Your task to perform on an android device: When is my next meeting? Image 0: 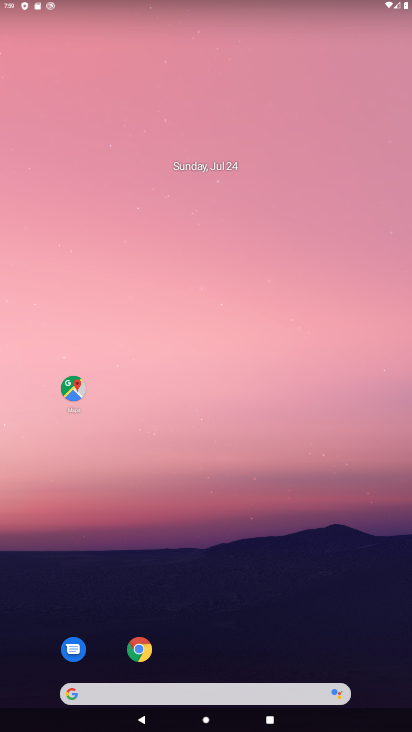
Step 0: drag from (207, 658) to (154, 104)
Your task to perform on an android device: When is my next meeting? Image 1: 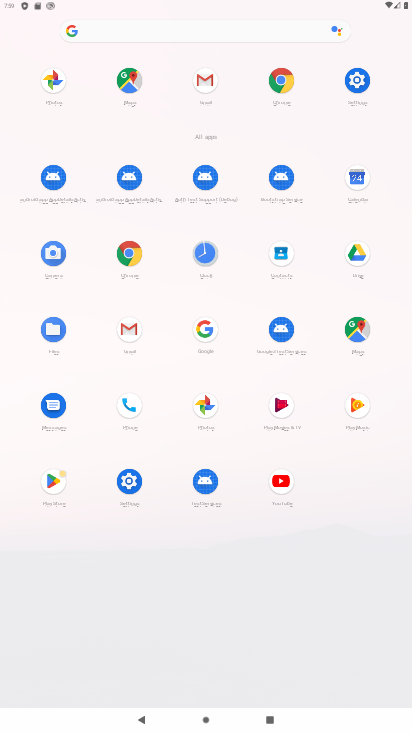
Step 1: click (362, 180)
Your task to perform on an android device: When is my next meeting? Image 2: 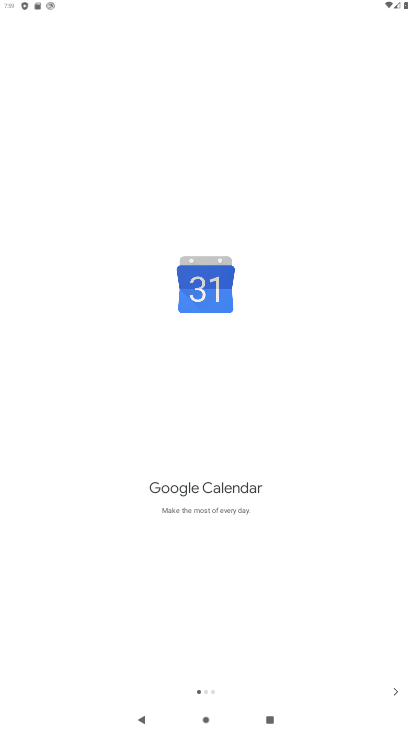
Step 2: click (386, 695)
Your task to perform on an android device: When is my next meeting? Image 3: 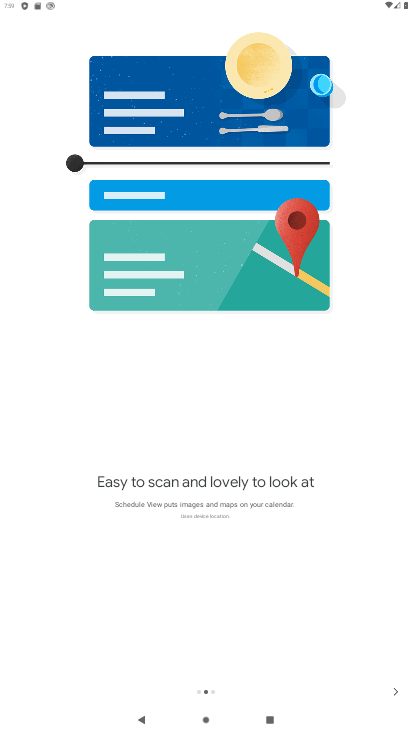
Step 3: click (388, 687)
Your task to perform on an android device: When is my next meeting? Image 4: 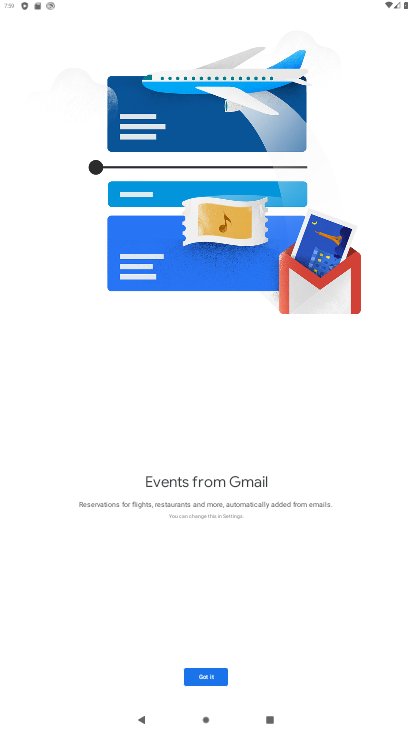
Step 4: click (216, 673)
Your task to perform on an android device: When is my next meeting? Image 5: 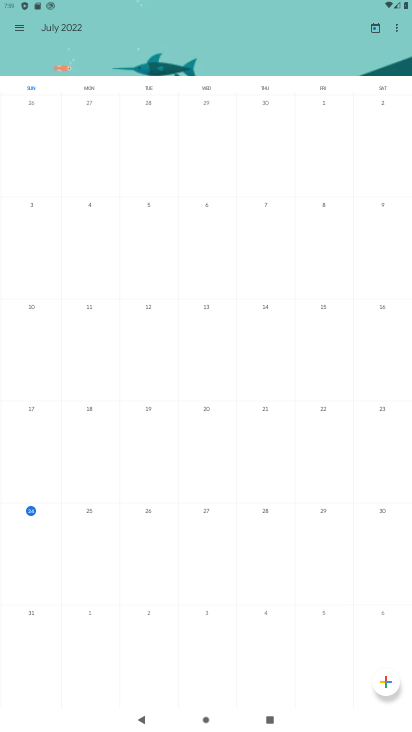
Step 5: task complete